Your task to perform on an android device: snooze an email in the gmail app Image 0: 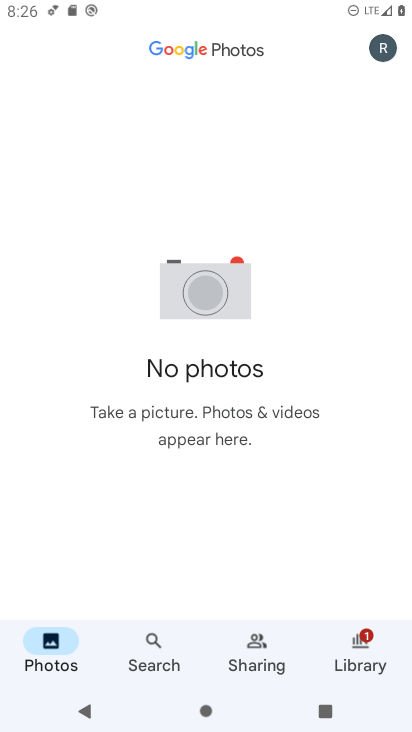
Step 0: press home button
Your task to perform on an android device: snooze an email in the gmail app Image 1: 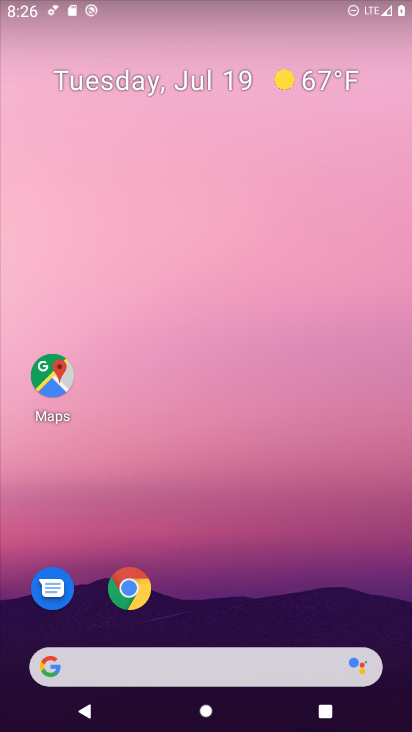
Step 1: drag from (325, 578) to (343, 86)
Your task to perform on an android device: snooze an email in the gmail app Image 2: 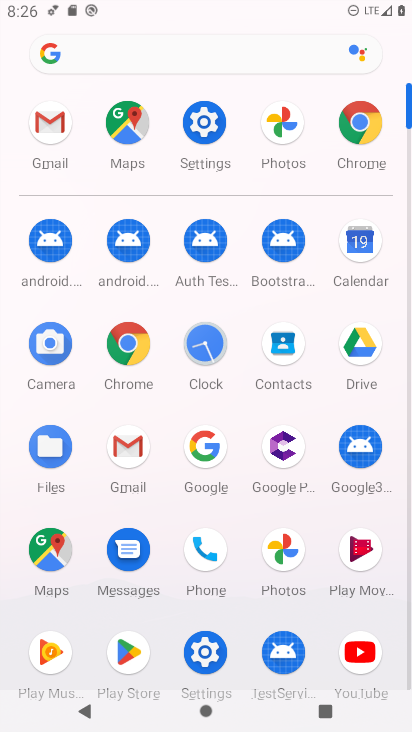
Step 2: click (124, 453)
Your task to perform on an android device: snooze an email in the gmail app Image 3: 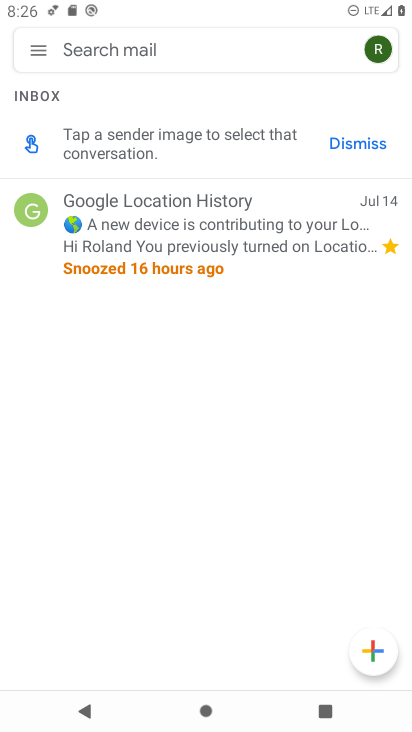
Step 3: click (40, 52)
Your task to perform on an android device: snooze an email in the gmail app Image 4: 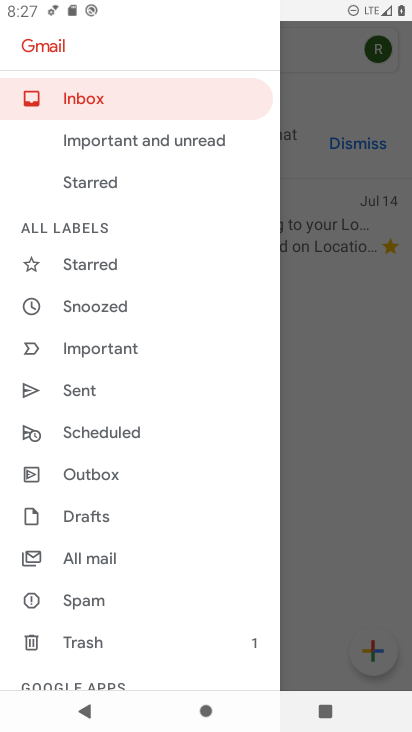
Step 4: drag from (211, 514) to (224, 361)
Your task to perform on an android device: snooze an email in the gmail app Image 5: 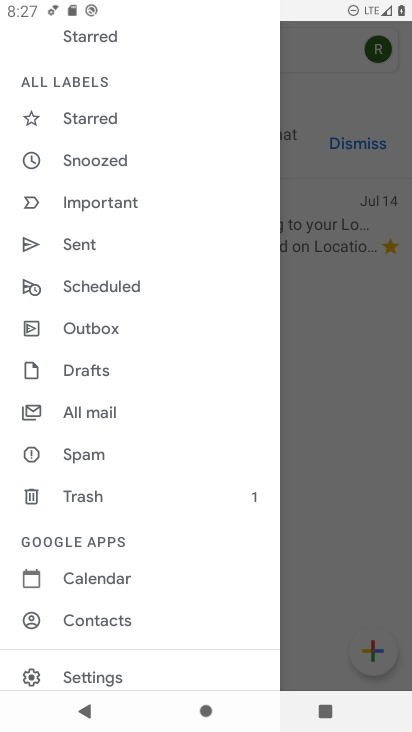
Step 5: drag from (198, 512) to (199, 389)
Your task to perform on an android device: snooze an email in the gmail app Image 6: 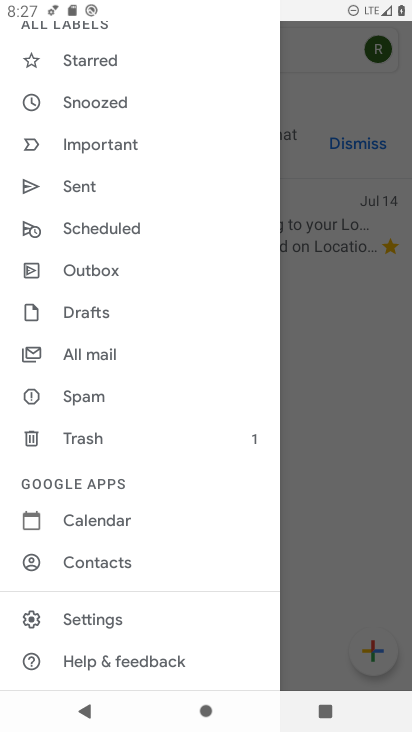
Step 6: drag from (195, 267) to (195, 400)
Your task to perform on an android device: snooze an email in the gmail app Image 7: 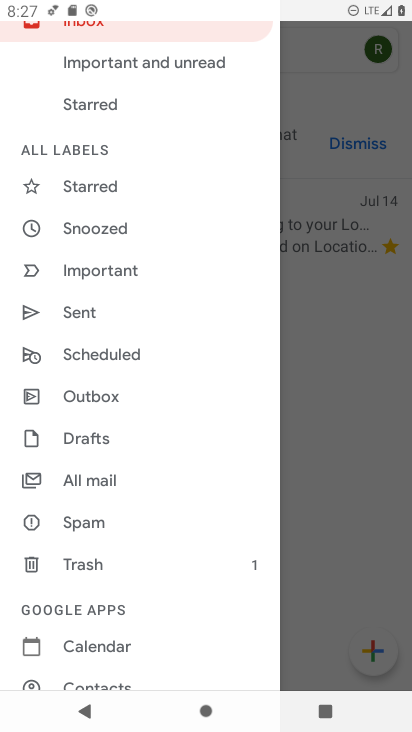
Step 7: drag from (207, 228) to (208, 389)
Your task to perform on an android device: snooze an email in the gmail app Image 8: 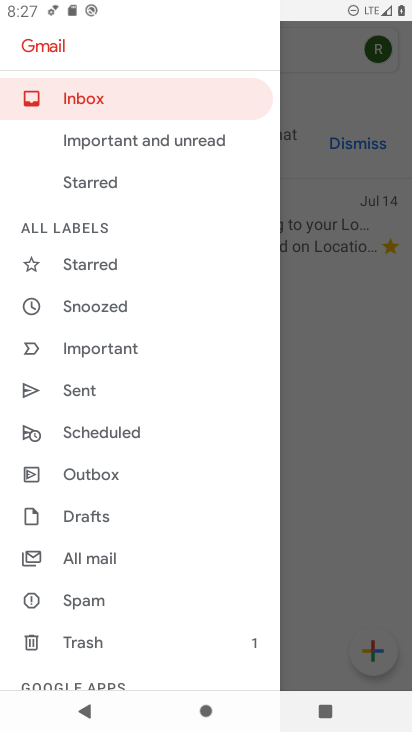
Step 8: click (134, 302)
Your task to perform on an android device: snooze an email in the gmail app Image 9: 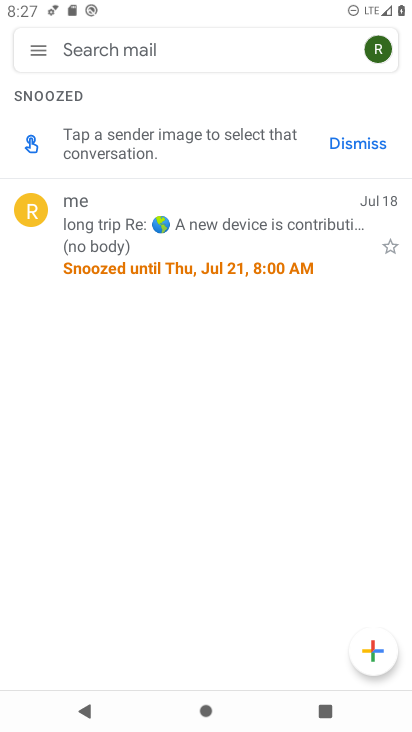
Step 9: click (39, 46)
Your task to perform on an android device: snooze an email in the gmail app Image 10: 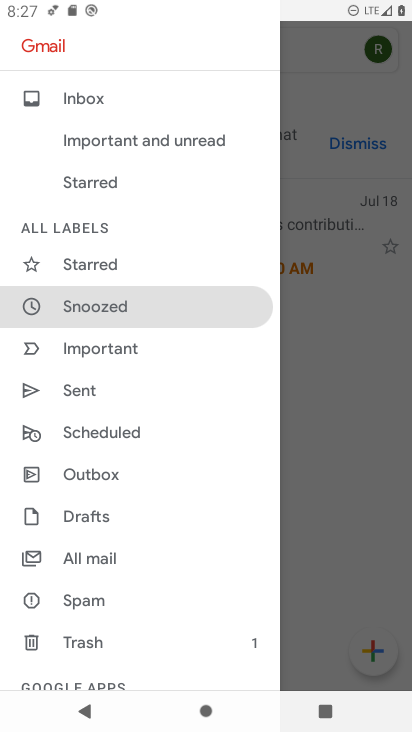
Step 10: click (135, 303)
Your task to perform on an android device: snooze an email in the gmail app Image 11: 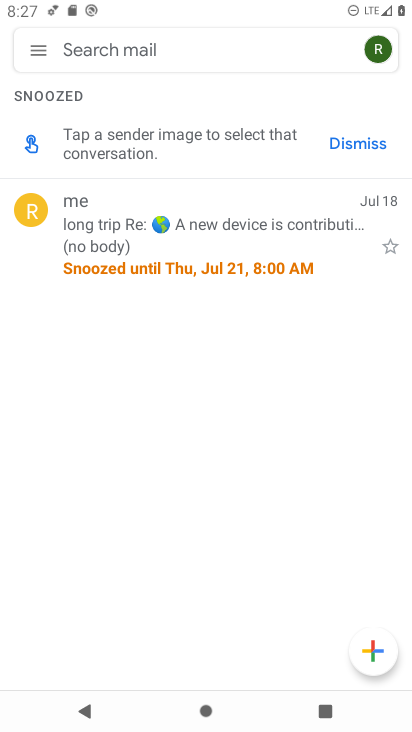
Step 11: task complete